Your task to perform on an android device: search for starred emails in the gmail app Image 0: 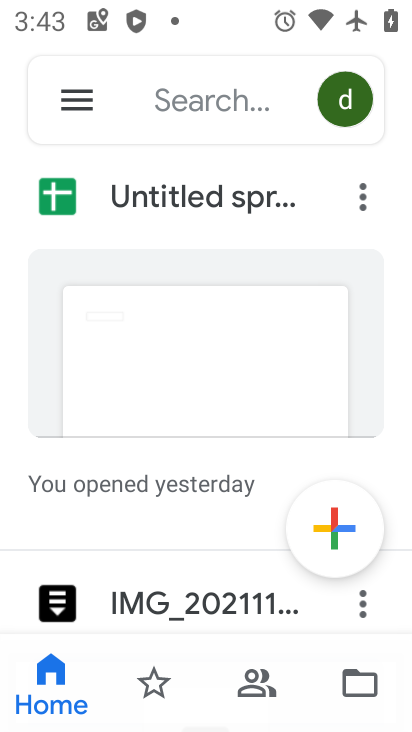
Step 0: press home button
Your task to perform on an android device: search for starred emails in the gmail app Image 1: 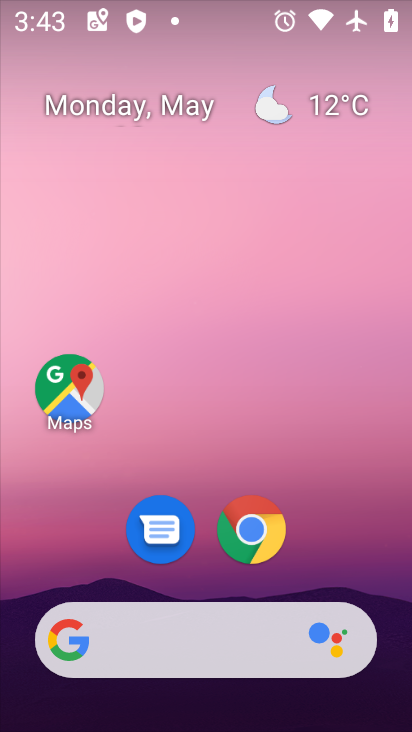
Step 1: drag from (303, 534) to (302, 110)
Your task to perform on an android device: search for starred emails in the gmail app Image 2: 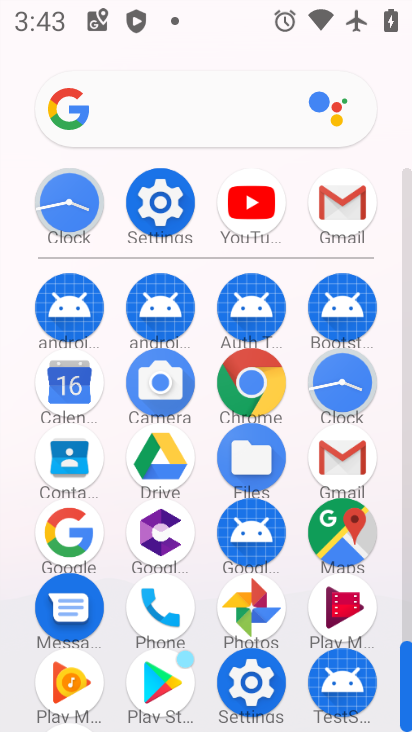
Step 2: click (324, 458)
Your task to perform on an android device: search for starred emails in the gmail app Image 3: 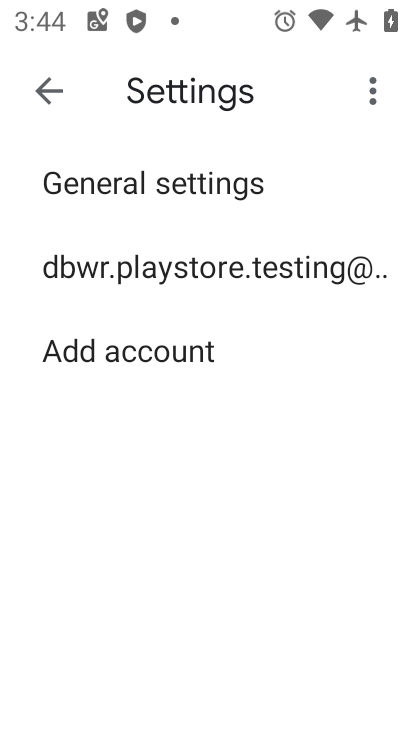
Step 3: click (36, 91)
Your task to perform on an android device: search for starred emails in the gmail app Image 4: 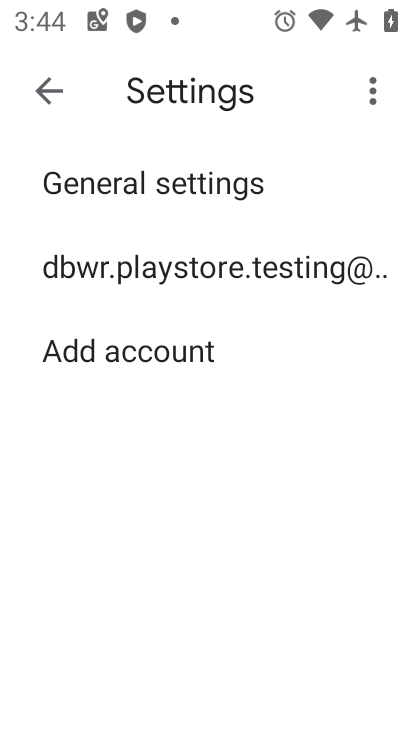
Step 4: click (46, 108)
Your task to perform on an android device: search for starred emails in the gmail app Image 5: 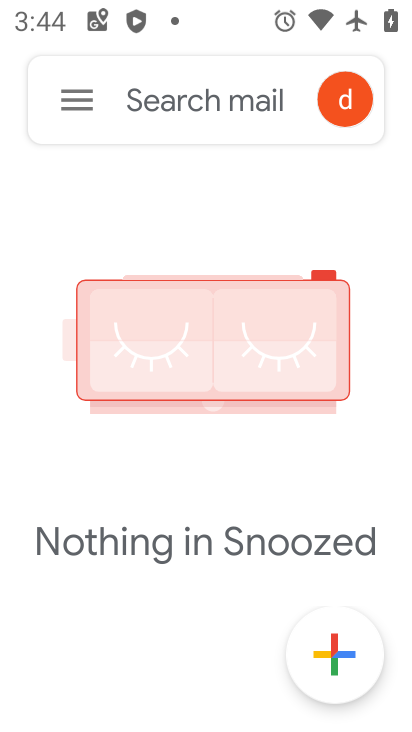
Step 5: click (55, 98)
Your task to perform on an android device: search for starred emails in the gmail app Image 6: 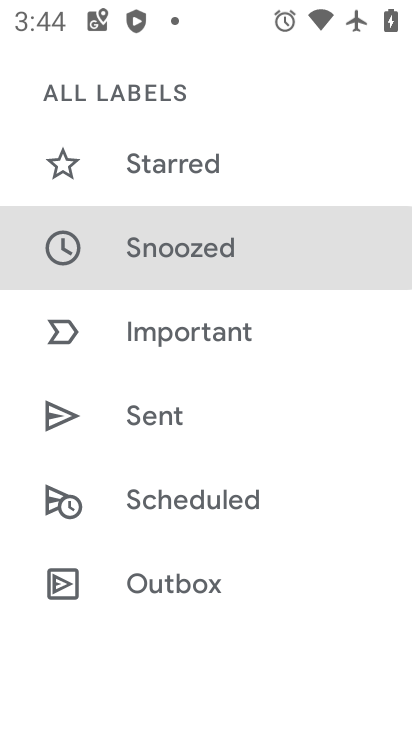
Step 6: click (167, 166)
Your task to perform on an android device: search for starred emails in the gmail app Image 7: 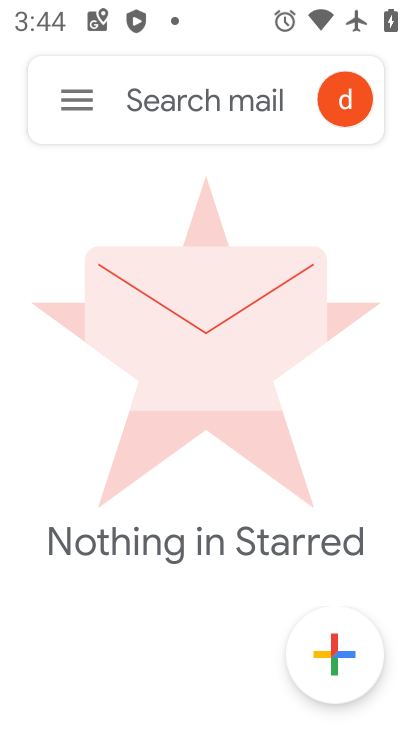
Step 7: task complete